Your task to perform on an android device: turn on improve location accuracy Image 0: 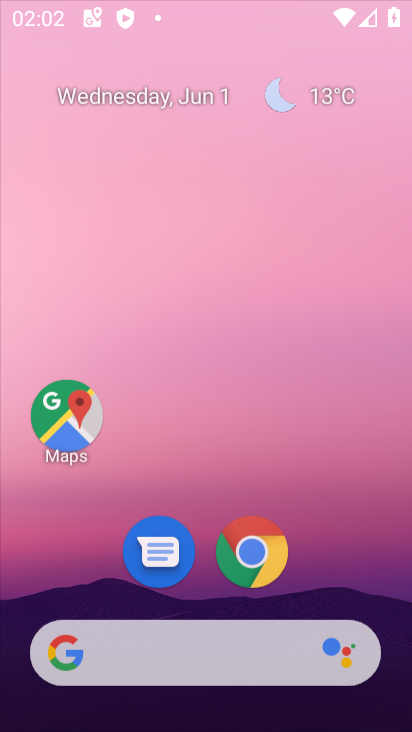
Step 0: drag from (386, 674) to (358, 141)
Your task to perform on an android device: turn on improve location accuracy Image 1: 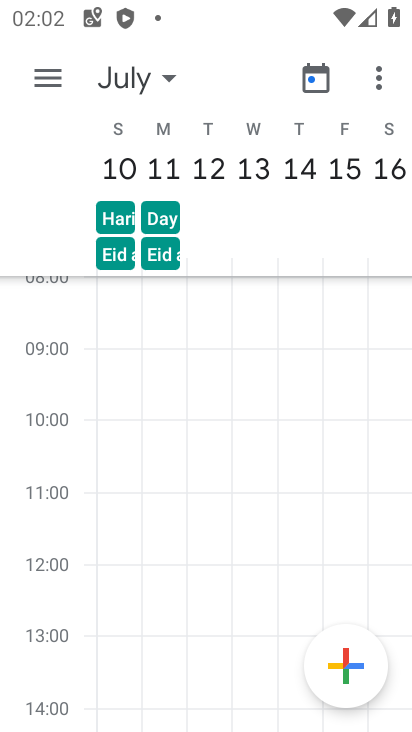
Step 1: press home button
Your task to perform on an android device: turn on improve location accuracy Image 2: 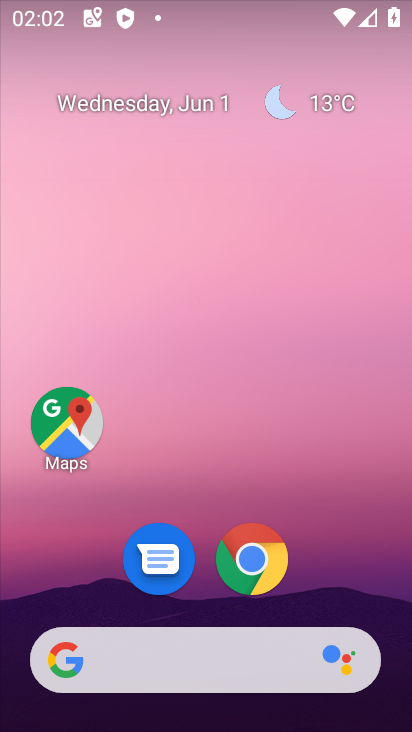
Step 2: drag from (389, 627) to (328, 7)
Your task to perform on an android device: turn on improve location accuracy Image 3: 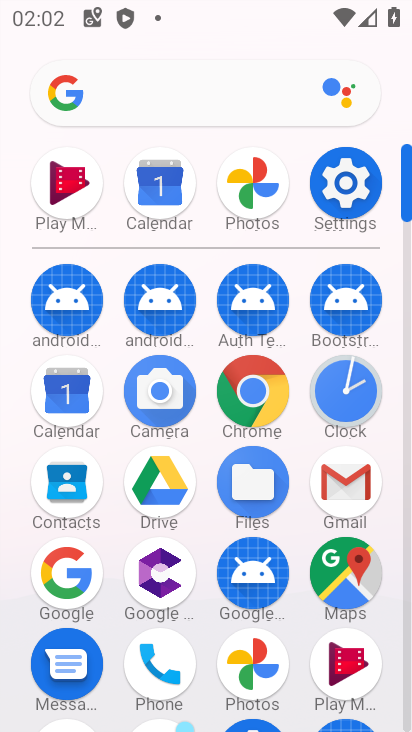
Step 3: click (338, 172)
Your task to perform on an android device: turn on improve location accuracy Image 4: 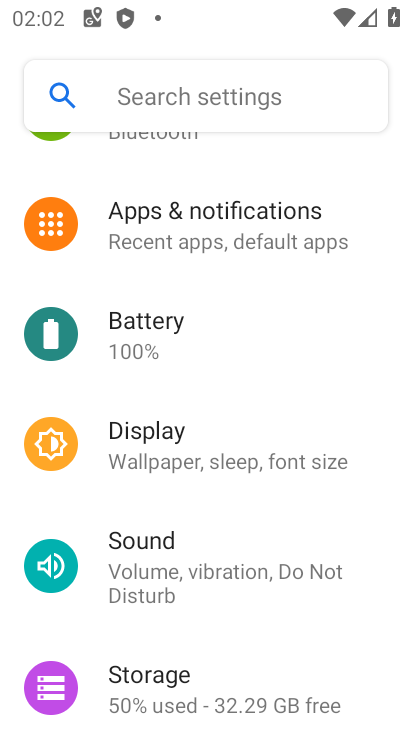
Step 4: drag from (279, 675) to (274, 345)
Your task to perform on an android device: turn on improve location accuracy Image 5: 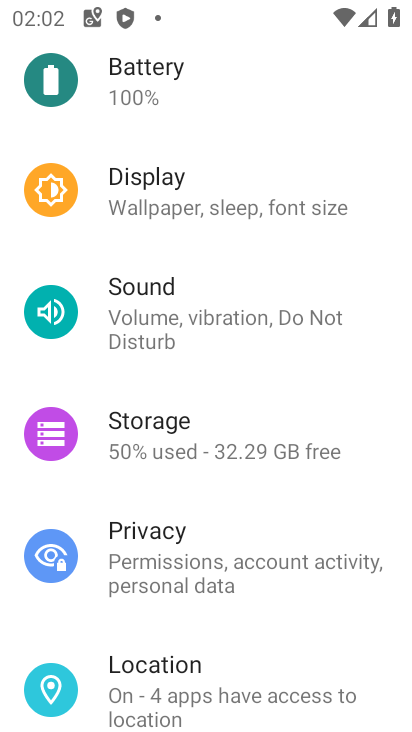
Step 5: click (175, 674)
Your task to perform on an android device: turn on improve location accuracy Image 6: 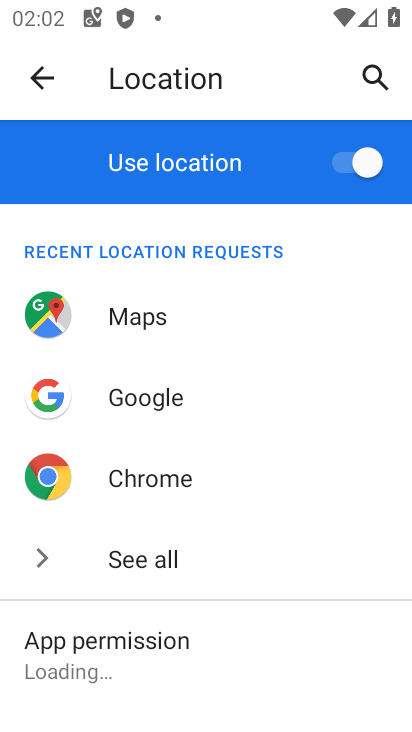
Step 6: drag from (270, 649) to (255, 234)
Your task to perform on an android device: turn on improve location accuracy Image 7: 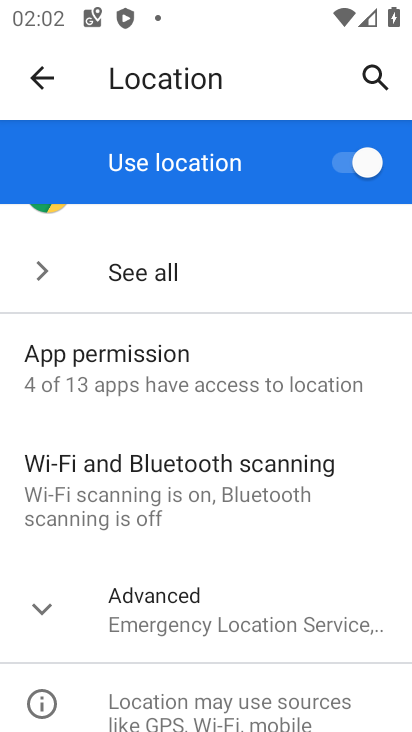
Step 7: click (36, 610)
Your task to perform on an android device: turn on improve location accuracy Image 8: 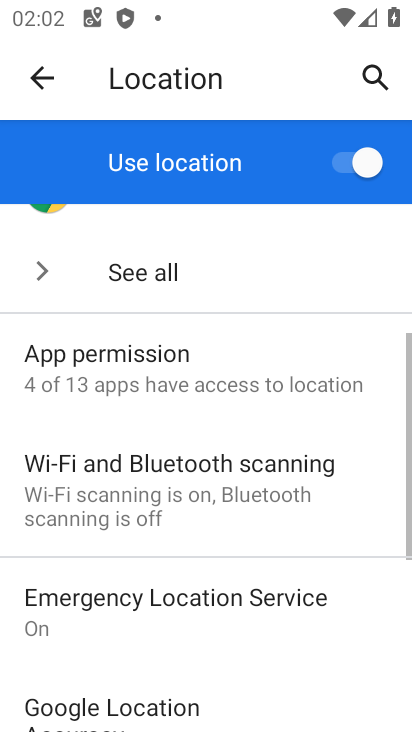
Step 8: drag from (273, 621) to (243, 94)
Your task to perform on an android device: turn on improve location accuracy Image 9: 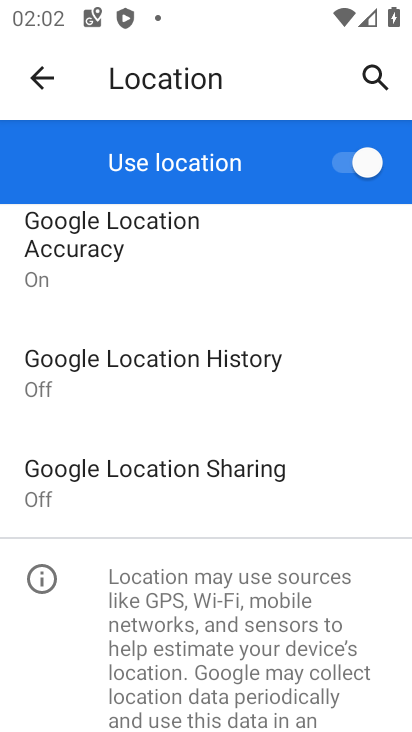
Step 9: click (97, 236)
Your task to perform on an android device: turn on improve location accuracy Image 10: 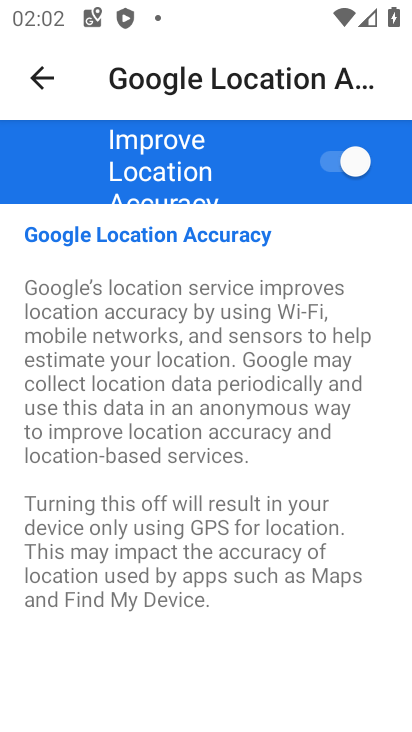
Step 10: task complete